Your task to perform on an android device: open the mobile data screen to see how much data has been used Image 0: 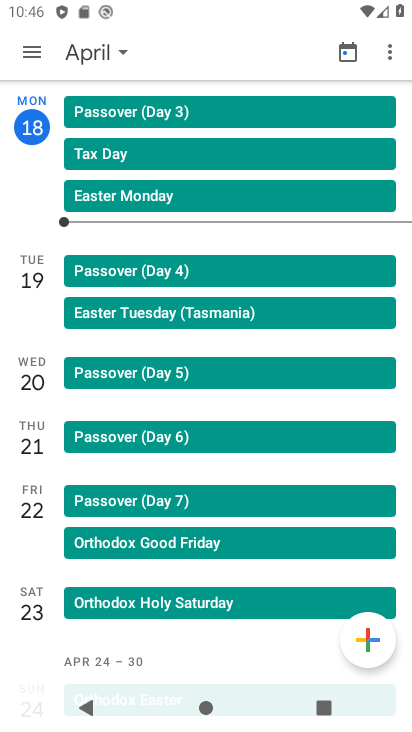
Step 0: press home button
Your task to perform on an android device: open the mobile data screen to see how much data has been used Image 1: 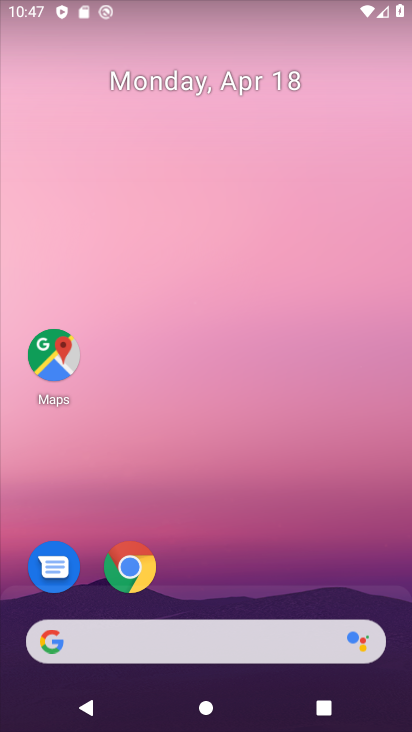
Step 1: drag from (382, 595) to (216, 15)
Your task to perform on an android device: open the mobile data screen to see how much data has been used Image 2: 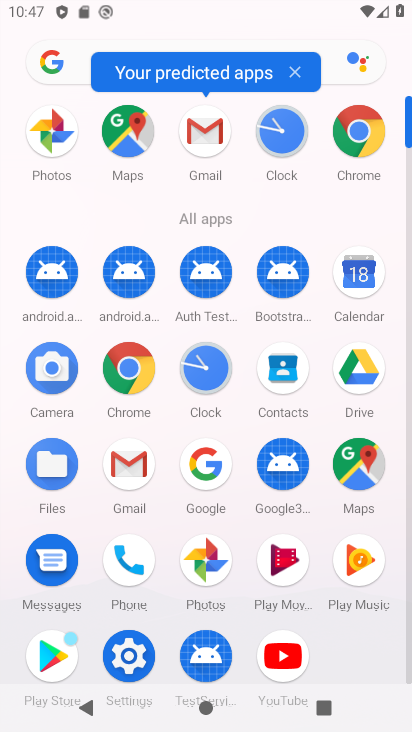
Step 2: click (408, 668)
Your task to perform on an android device: open the mobile data screen to see how much data has been used Image 3: 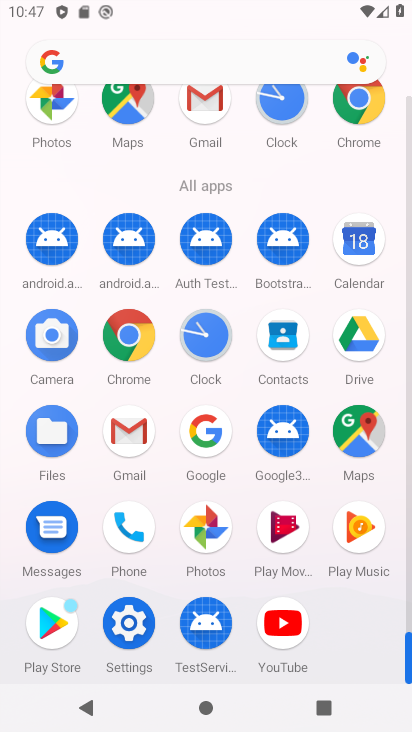
Step 3: click (130, 625)
Your task to perform on an android device: open the mobile data screen to see how much data has been used Image 4: 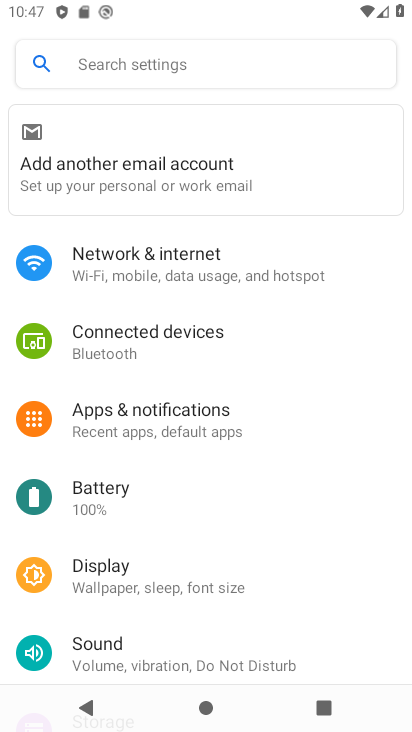
Step 4: click (123, 253)
Your task to perform on an android device: open the mobile data screen to see how much data has been used Image 5: 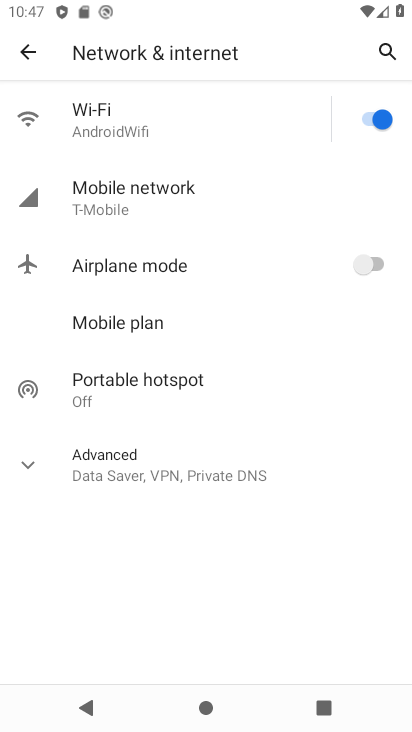
Step 5: click (120, 190)
Your task to perform on an android device: open the mobile data screen to see how much data has been used Image 6: 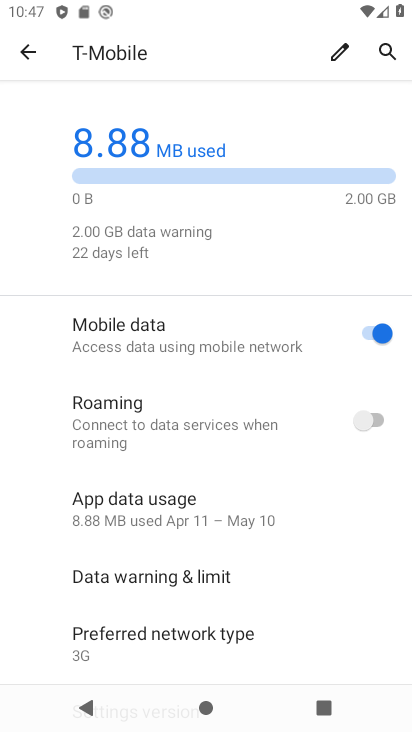
Step 6: task complete